Your task to perform on an android device: Open privacy settings Image 0: 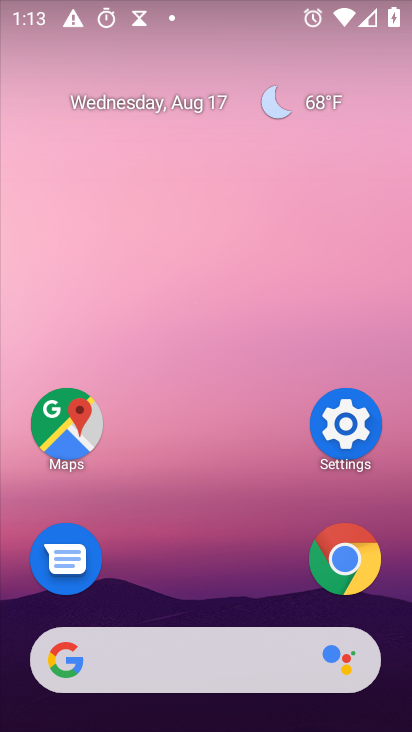
Step 0: click (346, 425)
Your task to perform on an android device: Open privacy settings Image 1: 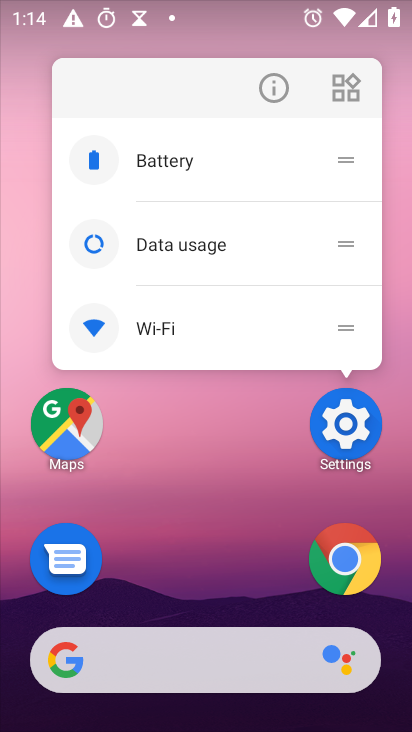
Step 1: click (340, 433)
Your task to perform on an android device: Open privacy settings Image 2: 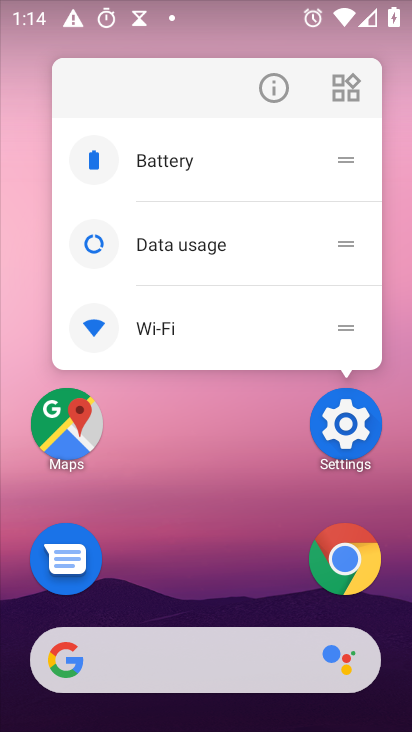
Step 2: click (349, 433)
Your task to perform on an android device: Open privacy settings Image 3: 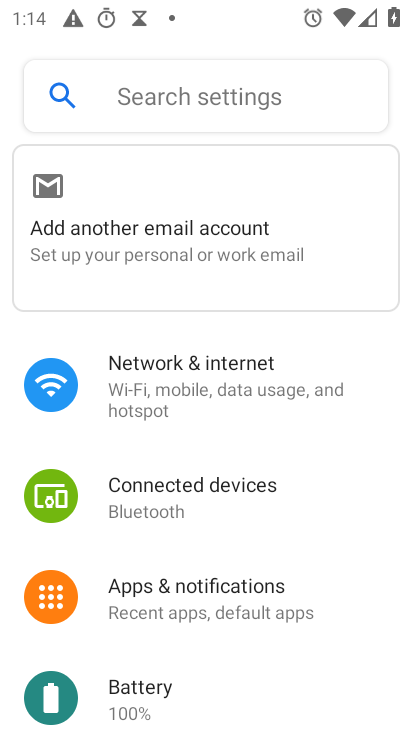
Step 3: drag from (213, 613) to (340, 58)
Your task to perform on an android device: Open privacy settings Image 4: 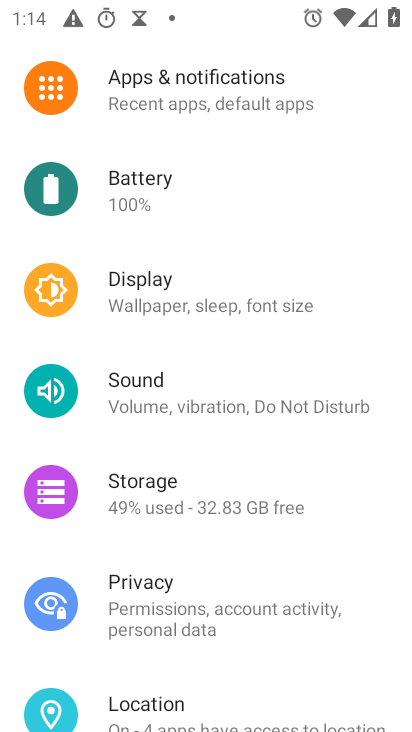
Step 4: click (149, 598)
Your task to perform on an android device: Open privacy settings Image 5: 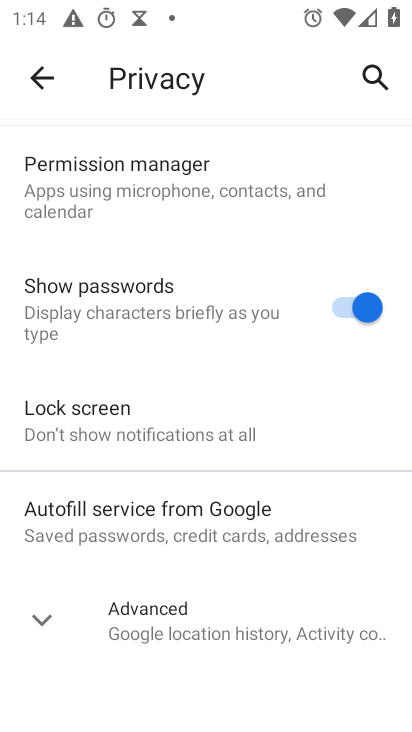
Step 5: task complete